Your task to perform on an android device: set default search engine in the chrome app Image 0: 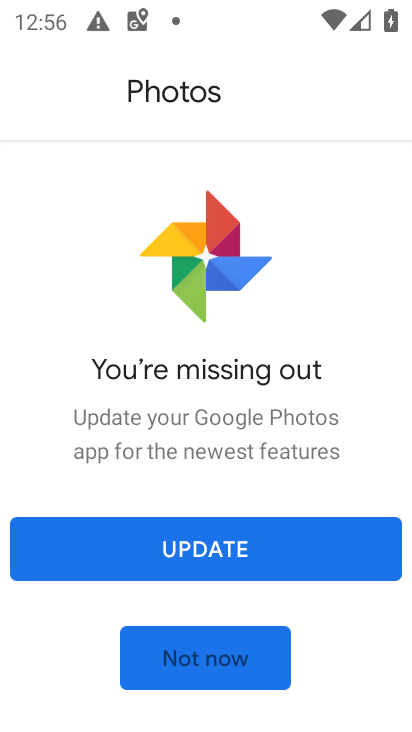
Step 0: press home button
Your task to perform on an android device: set default search engine in the chrome app Image 1: 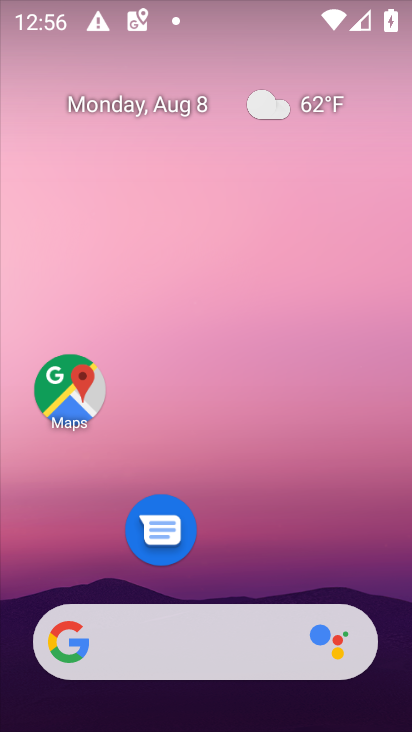
Step 1: drag from (214, 530) to (209, 130)
Your task to perform on an android device: set default search engine in the chrome app Image 2: 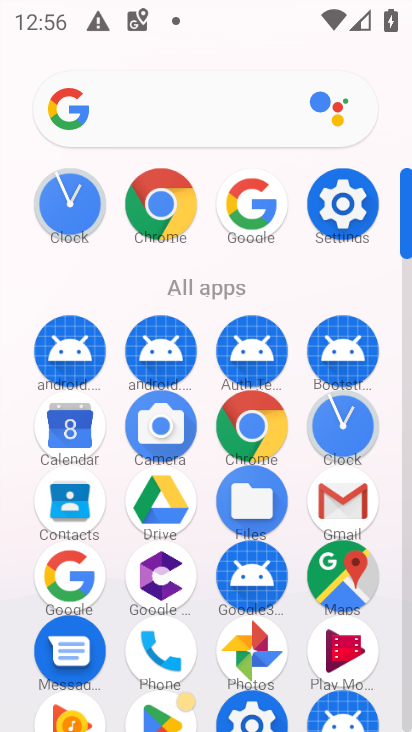
Step 2: click (263, 417)
Your task to perform on an android device: set default search engine in the chrome app Image 3: 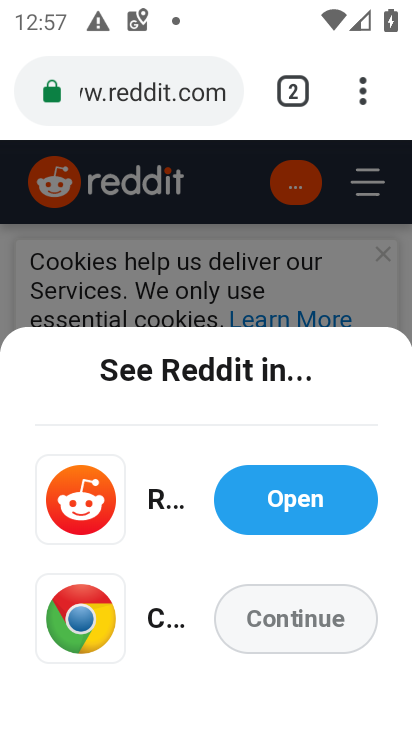
Step 3: drag from (364, 97) to (209, 545)
Your task to perform on an android device: set default search engine in the chrome app Image 4: 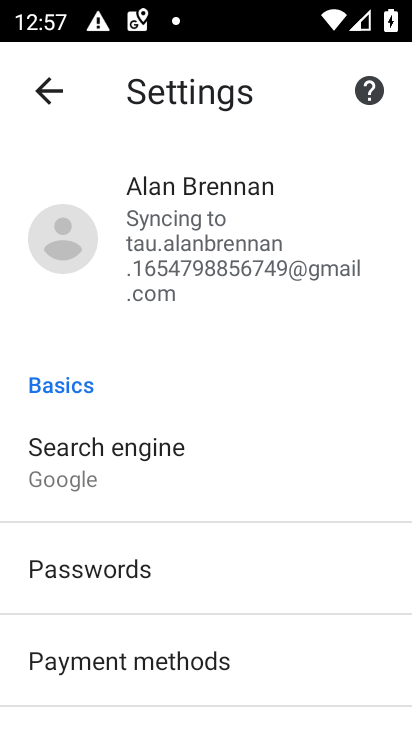
Step 4: click (78, 464)
Your task to perform on an android device: set default search engine in the chrome app Image 5: 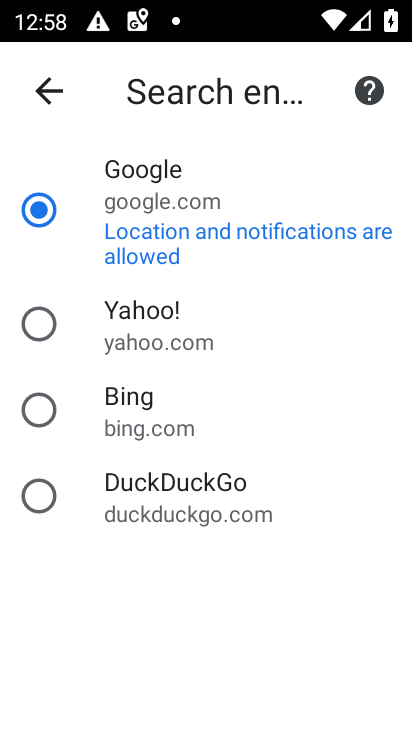
Step 5: click (40, 327)
Your task to perform on an android device: set default search engine in the chrome app Image 6: 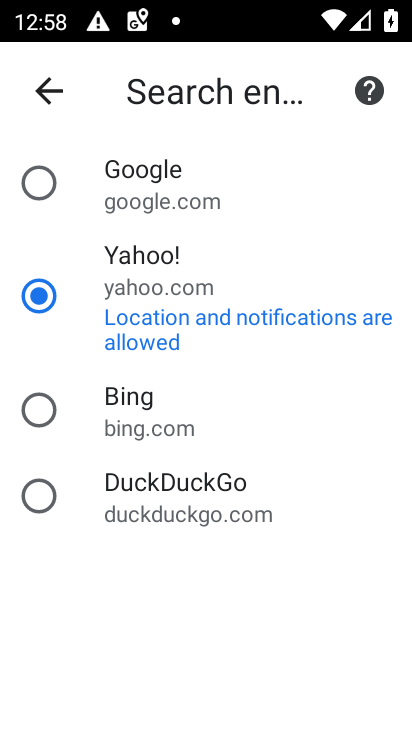
Step 6: task complete